Your task to perform on an android device: Go to eBay Image 0: 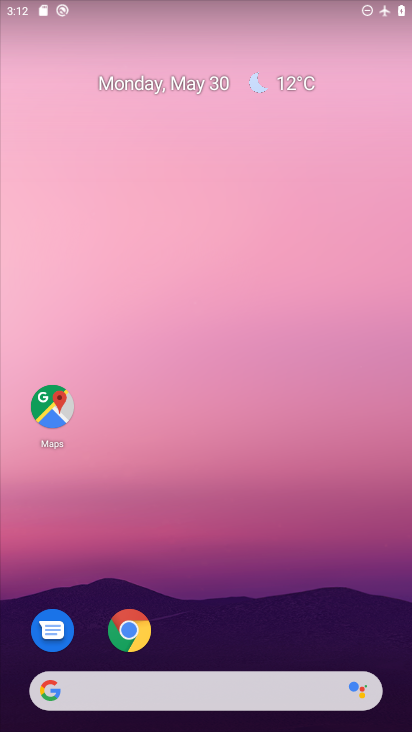
Step 0: press home button
Your task to perform on an android device: Go to eBay Image 1: 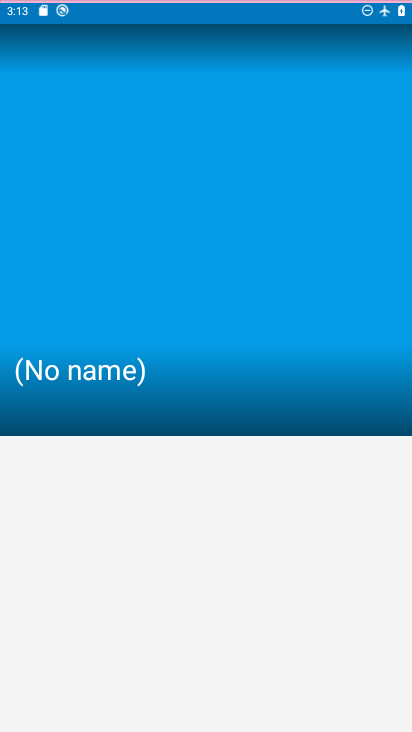
Step 1: drag from (210, 421) to (218, 162)
Your task to perform on an android device: Go to eBay Image 2: 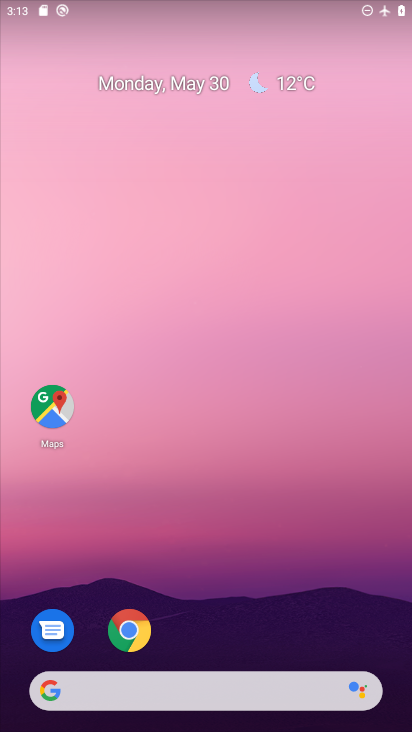
Step 2: drag from (196, 680) to (242, 153)
Your task to perform on an android device: Go to eBay Image 3: 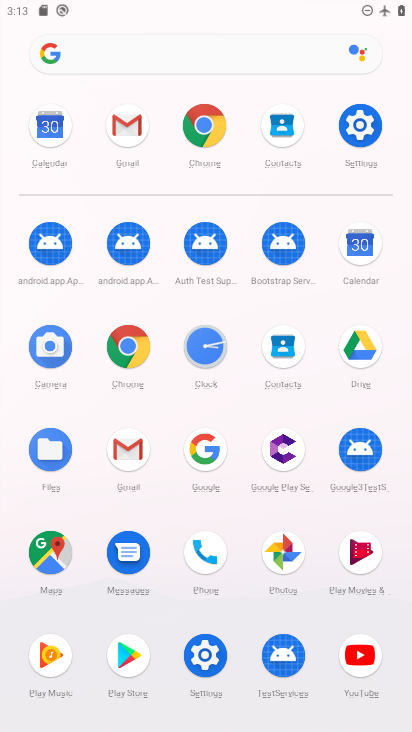
Step 3: click (190, 142)
Your task to perform on an android device: Go to eBay Image 4: 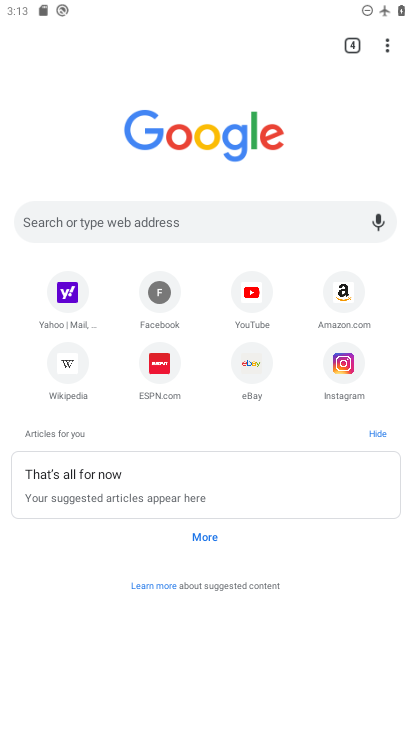
Step 4: click (240, 372)
Your task to perform on an android device: Go to eBay Image 5: 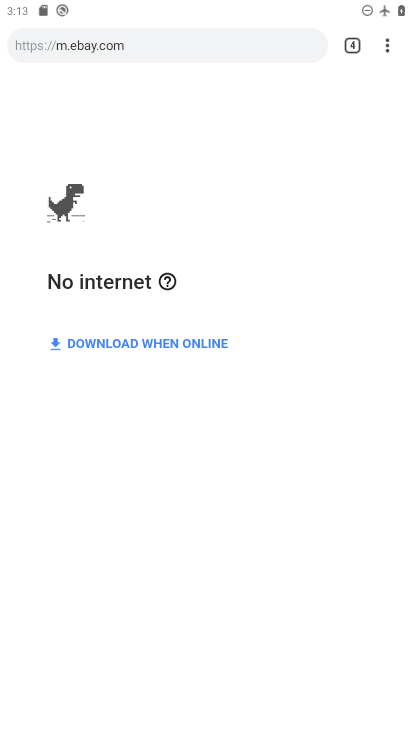
Step 5: task complete